Your task to perform on an android device: Go to privacy settings Image 0: 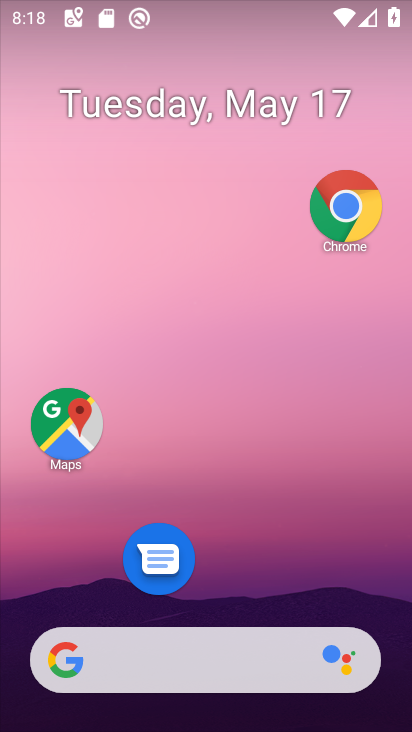
Step 0: drag from (143, 447) to (252, 42)
Your task to perform on an android device: Go to privacy settings Image 1: 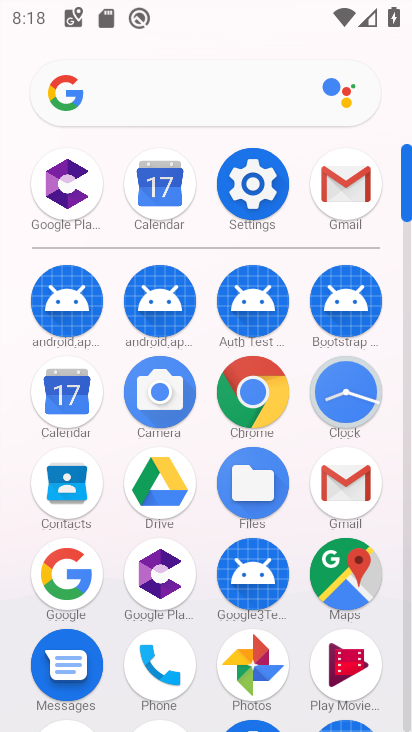
Step 1: click (266, 206)
Your task to perform on an android device: Go to privacy settings Image 2: 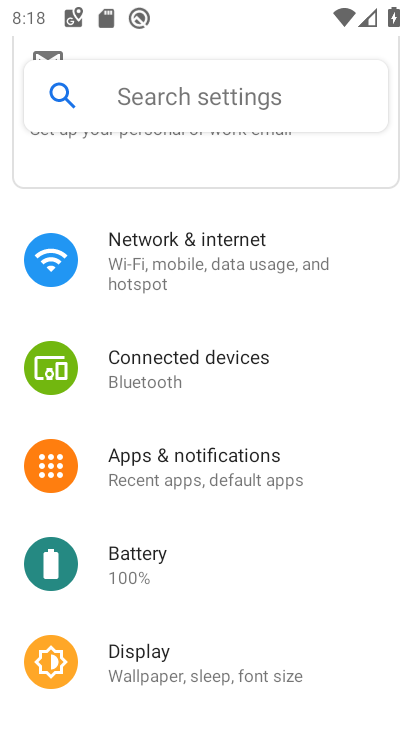
Step 2: drag from (221, 482) to (263, 241)
Your task to perform on an android device: Go to privacy settings Image 3: 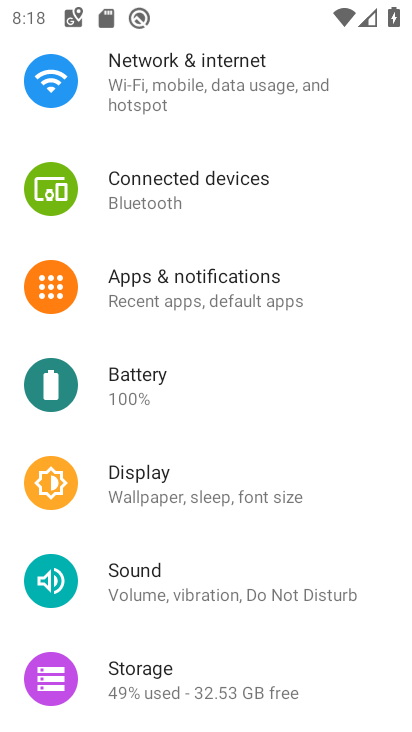
Step 3: drag from (214, 582) to (251, 290)
Your task to perform on an android device: Go to privacy settings Image 4: 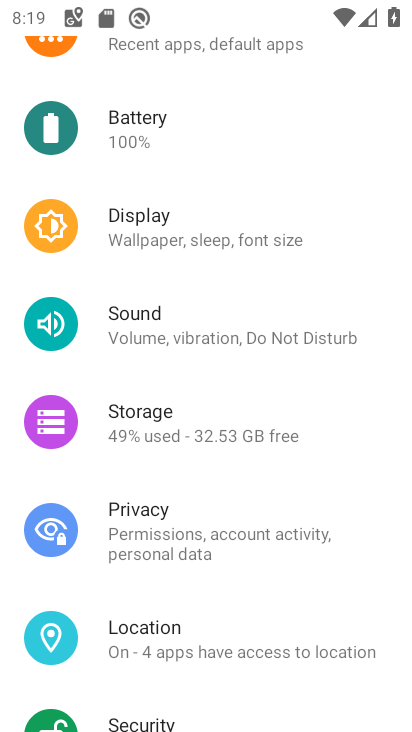
Step 4: click (237, 527)
Your task to perform on an android device: Go to privacy settings Image 5: 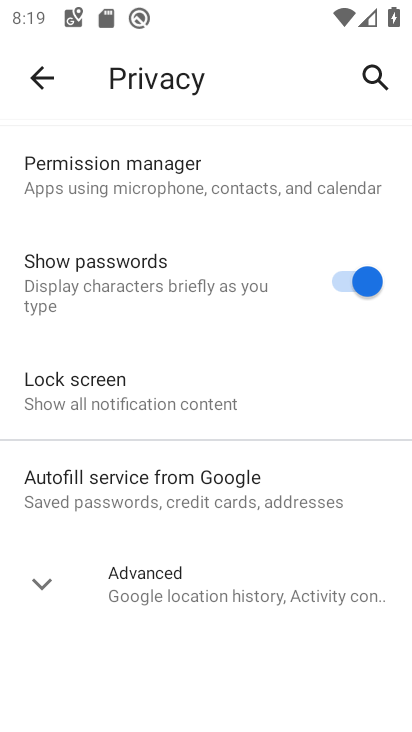
Step 5: task complete